Your task to perform on an android device: turn off sleep mode Image 0: 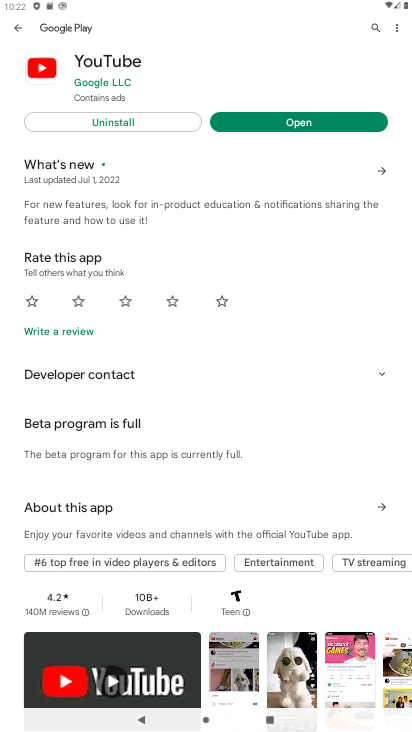
Step 0: press home button
Your task to perform on an android device: turn off sleep mode Image 1: 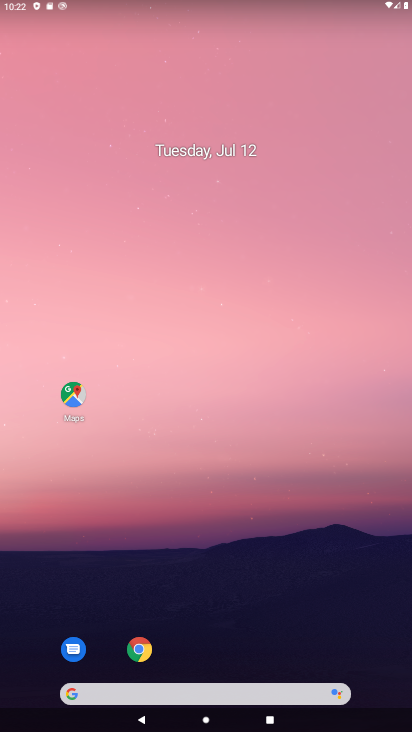
Step 1: drag from (378, 654) to (273, 195)
Your task to perform on an android device: turn off sleep mode Image 2: 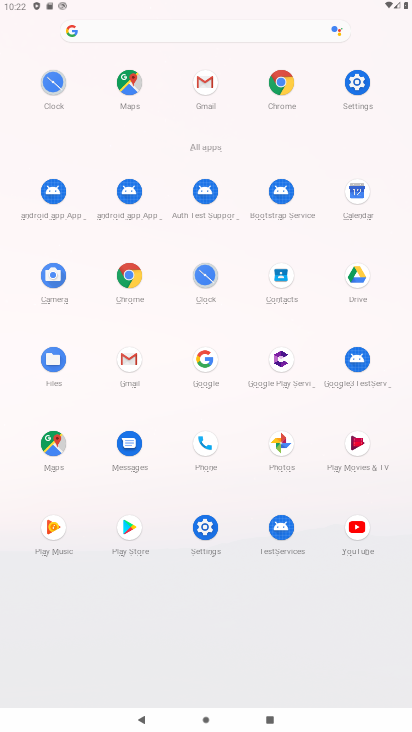
Step 2: click (204, 527)
Your task to perform on an android device: turn off sleep mode Image 3: 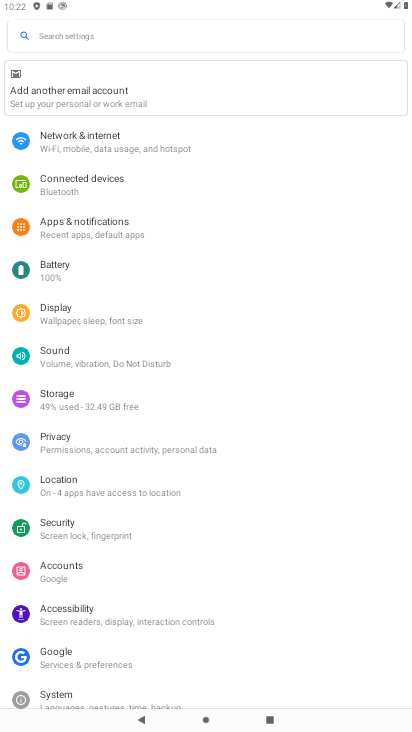
Step 3: click (60, 318)
Your task to perform on an android device: turn off sleep mode Image 4: 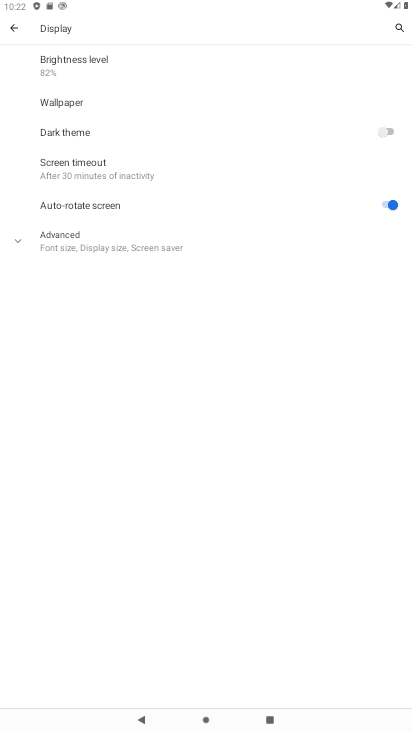
Step 4: click (16, 247)
Your task to perform on an android device: turn off sleep mode Image 5: 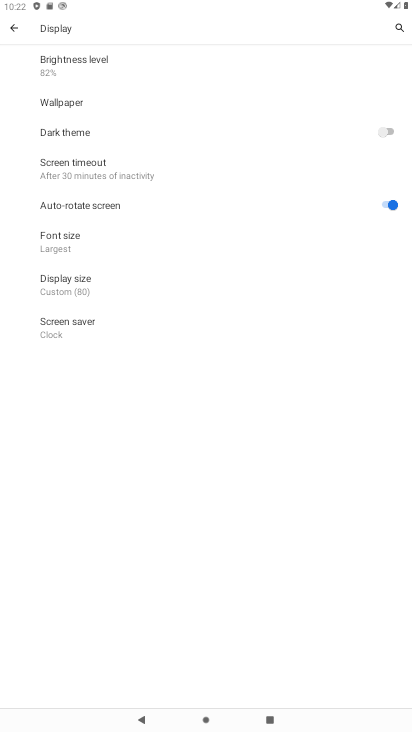
Step 5: task complete